Your task to perform on an android device: Open Chrome and go to settings Image 0: 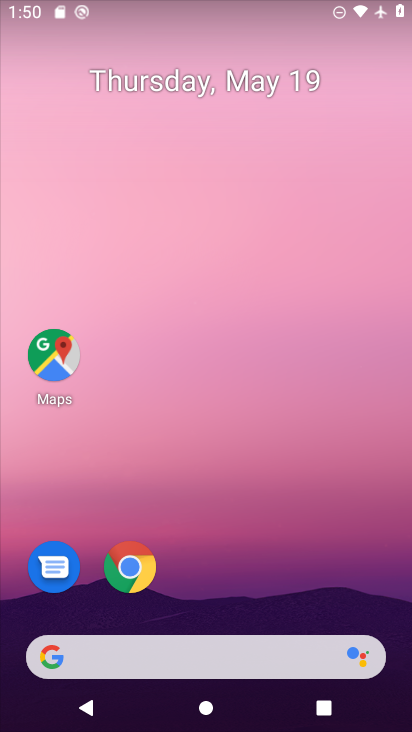
Step 0: click (135, 572)
Your task to perform on an android device: Open Chrome and go to settings Image 1: 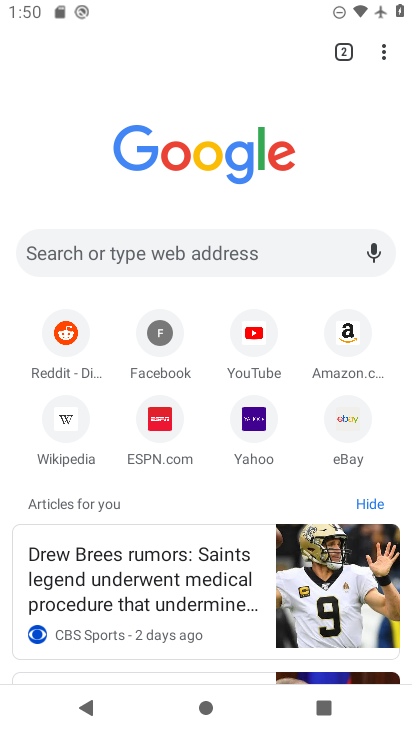
Step 1: click (383, 51)
Your task to perform on an android device: Open Chrome and go to settings Image 2: 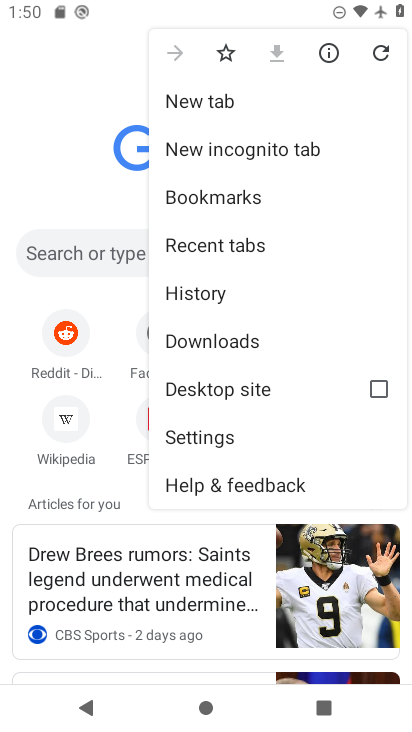
Step 2: click (217, 432)
Your task to perform on an android device: Open Chrome and go to settings Image 3: 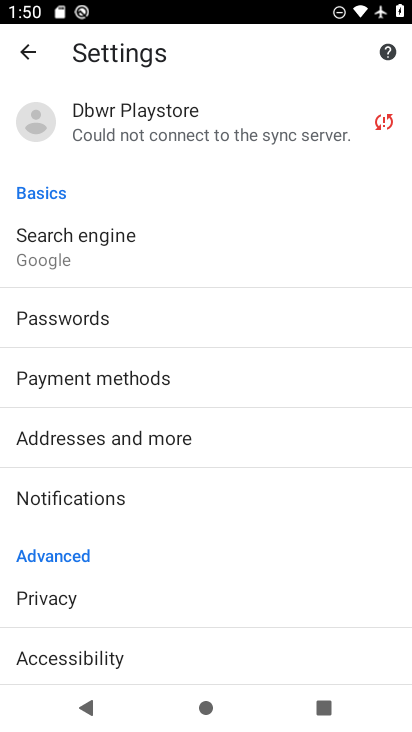
Step 3: task complete